Your task to perform on an android device: set an alarm Image 0: 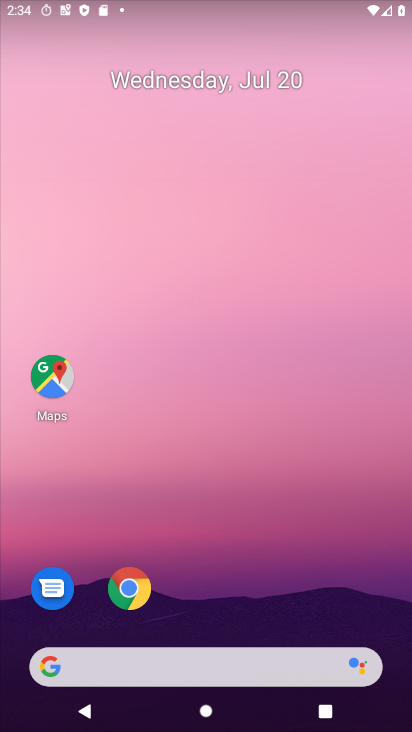
Step 0: drag from (295, 498) to (365, 10)
Your task to perform on an android device: set an alarm Image 1: 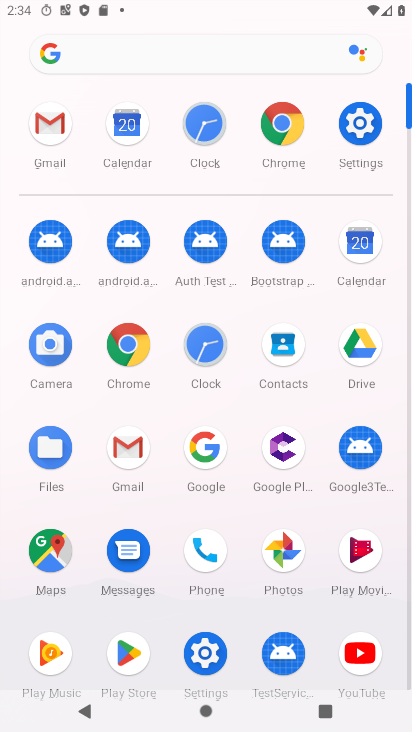
Step 1: click (207, 342)
Your task to perform on an android device: set an alarm Image 2: 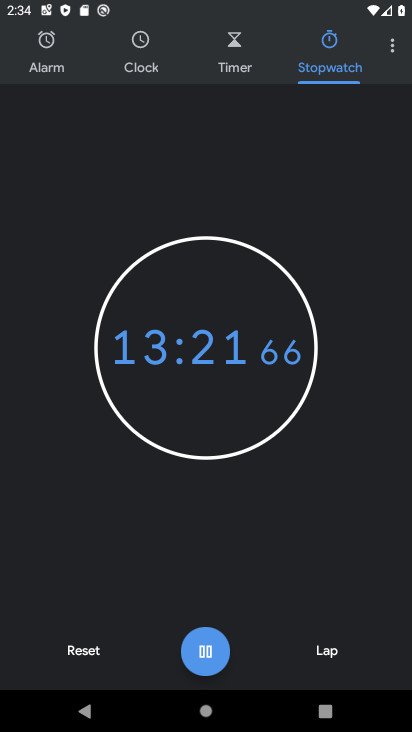
Step 2: click (27, 58)
Your task to perform on an android device: set an alarm Image 3: 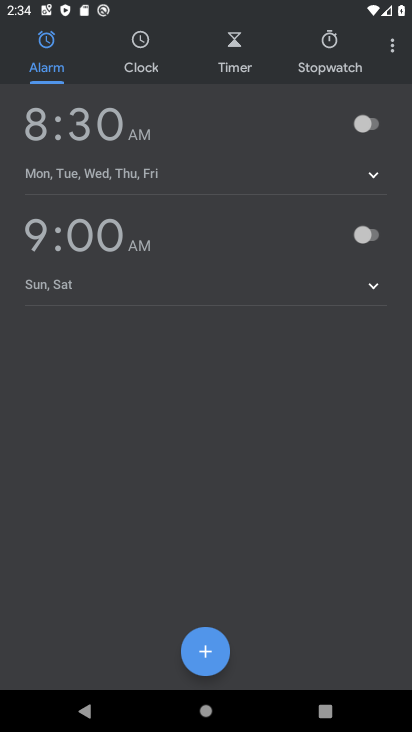
Step 3: click (363, 118)
Your task to perform on an android device: set an alarm Image 4: 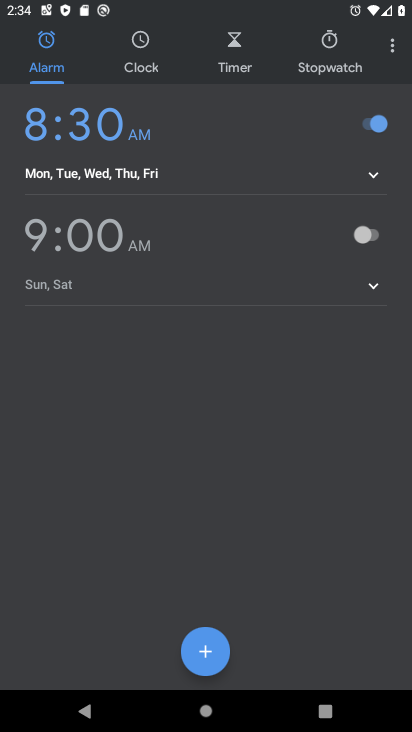
Step 4: task complete